Your task to perform on an android device: Turn on the flashlight Image 0: 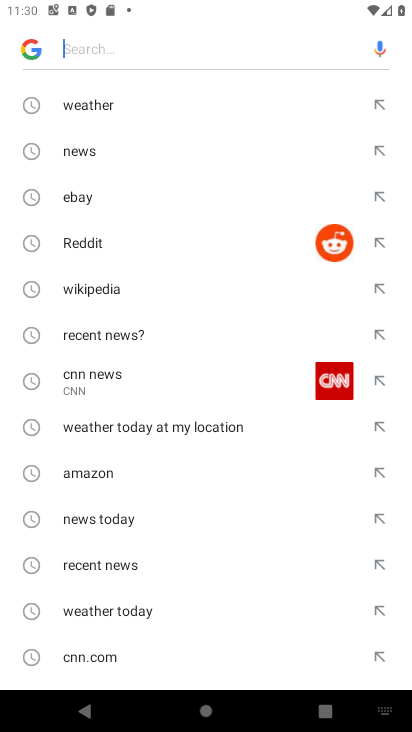
Step 0: press home button
Your task to perform on an android device: Turn on the flashlight Image 1: 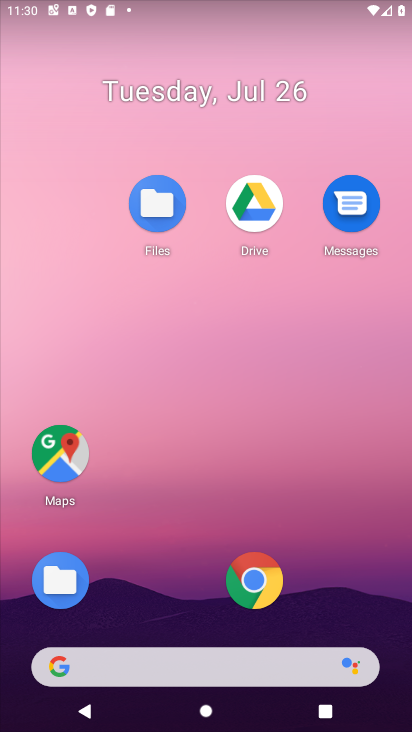
Step 1: drag from (168, 626) to (206, 82)
Your task to perform on an android device: Turn on the flashlight Image 2: 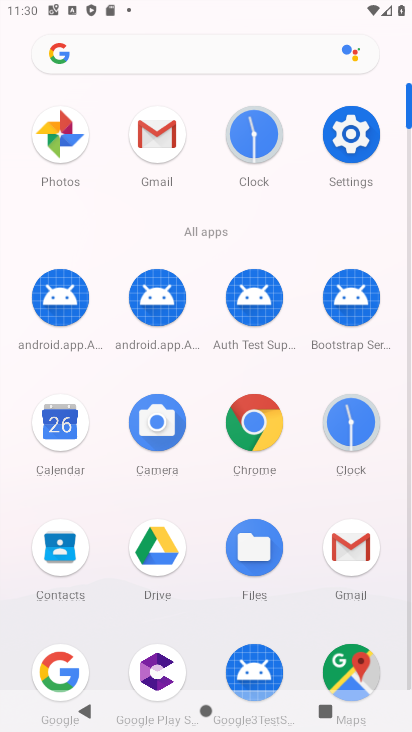
Step 2: click (350, 125)
Your task to perform on an android device: Turn on the flashlight Image 3: 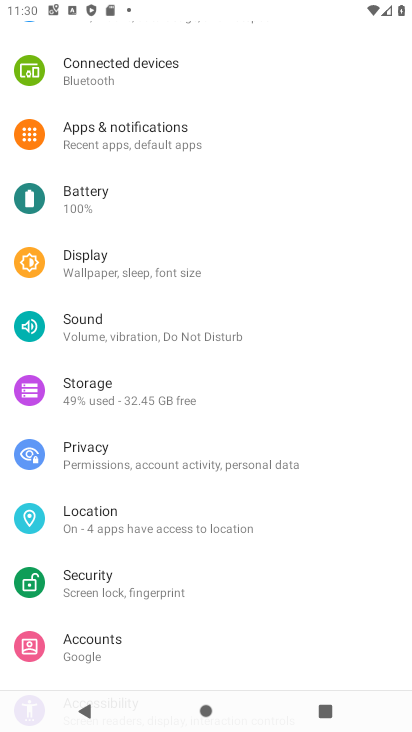
Step 3: task complete